Your task to perform on an android device: Play the last video I watched on Youtube Image 0: 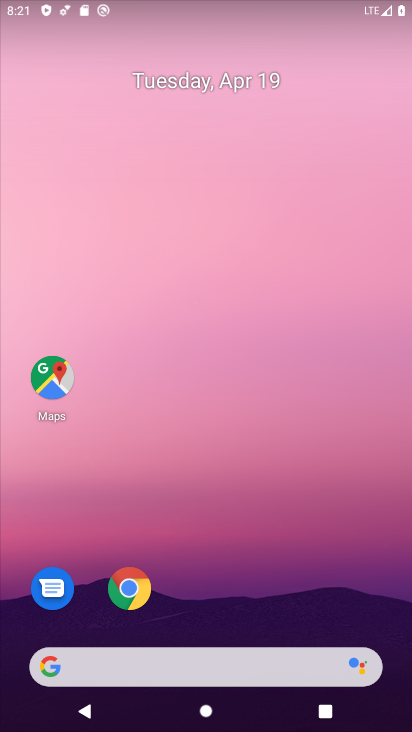
Step 0: press home button
Your task to perform on an android device: Play the last video I watched on Youtube Image 1: 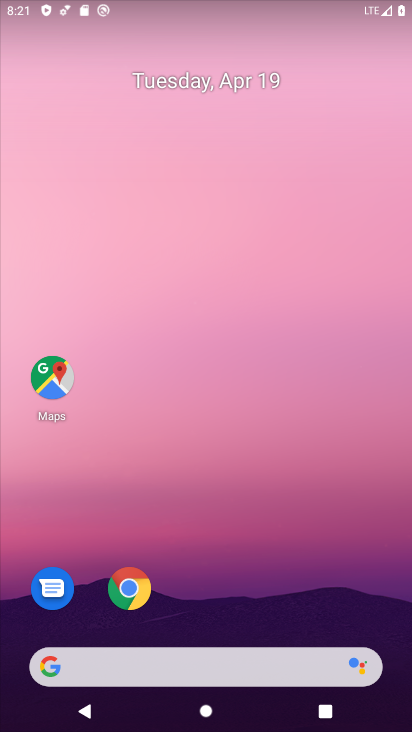
Step 1: drag from (223, 154) to (214, 28)
Your task to perform on an android device: Play the last video I watched on Youtube Image 2: 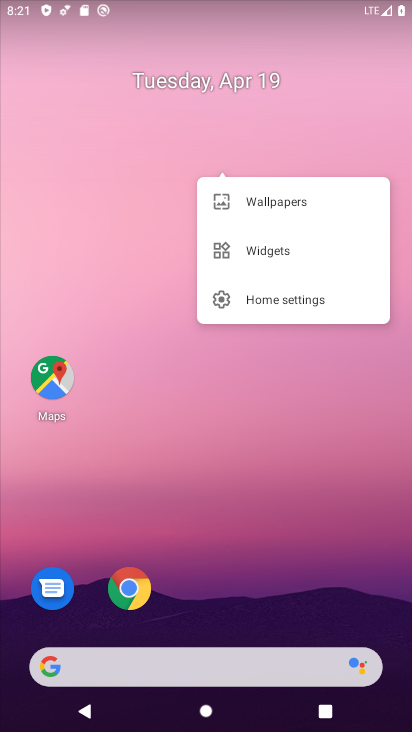
Step 2: click (199, 543)
Your task to perform on an android device: Play the last video I watched on Youtube Image 3: 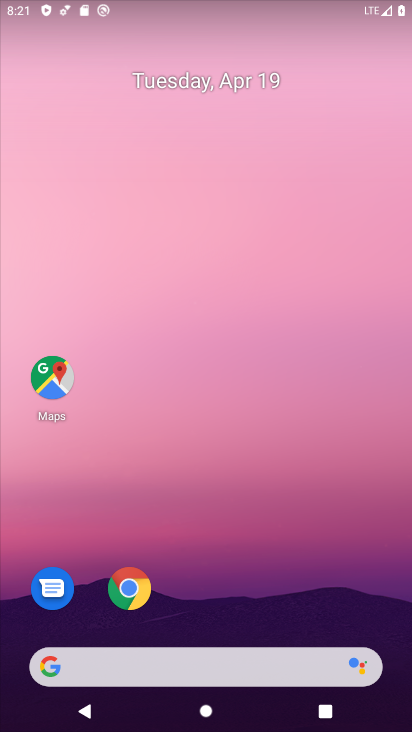
Step 3: drag from (205, 609) to (234, 31)
Your task to perform on an android device: Play the last video I watched on Youtube Image 4: 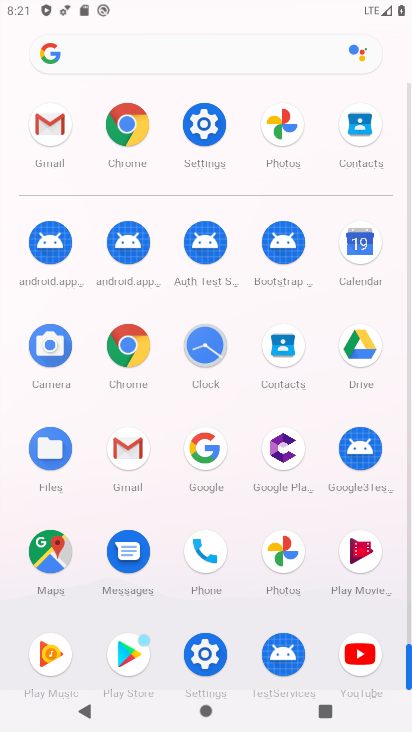
Step 4: click (360, 643)
Your task to perform on an android device: Play the last video I watched on Youtube Image 5: 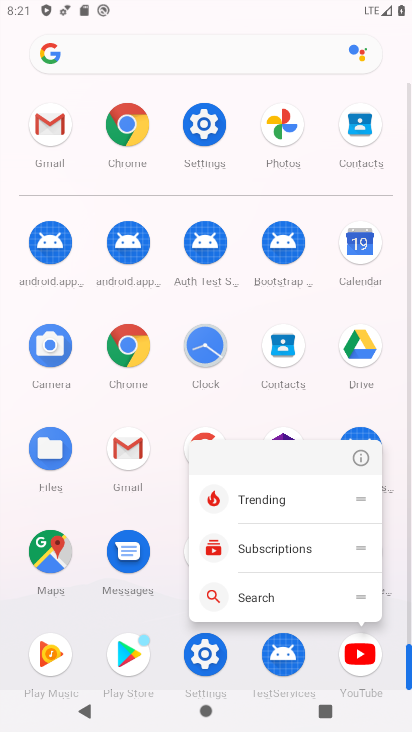
Step 5: click (358, 661)
Your task to perform on an android device: Play the last video I watched on Youtube Image 6: 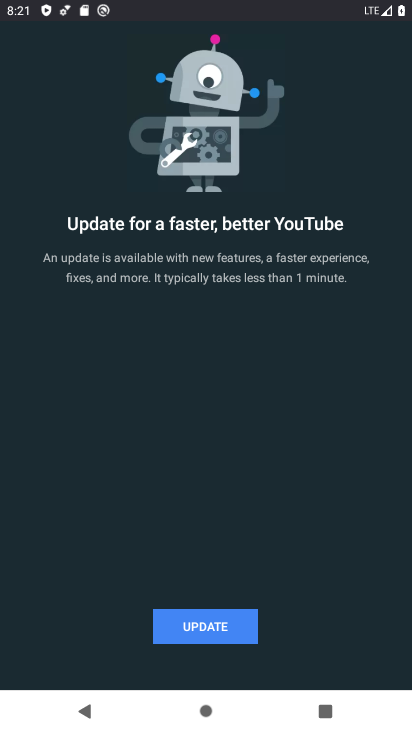
Step 6: click (185, 616)
Your task to perform on an android device: Play the last video I watched on Youtube Image 7: 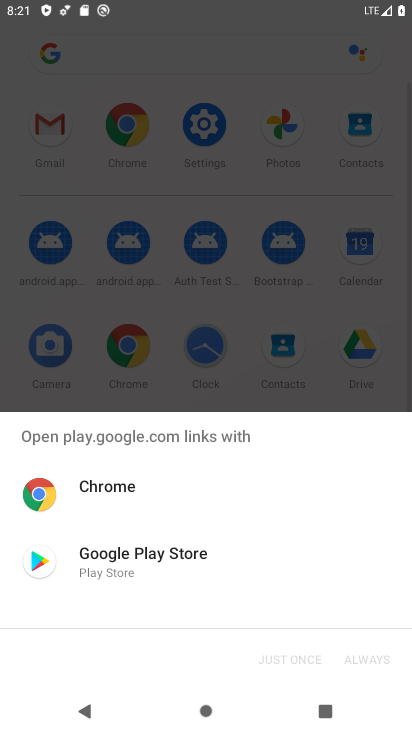
Step 7: click (172, 575)
Your task to perform on an android device: Play the last video I watched on Youtube Image 8: 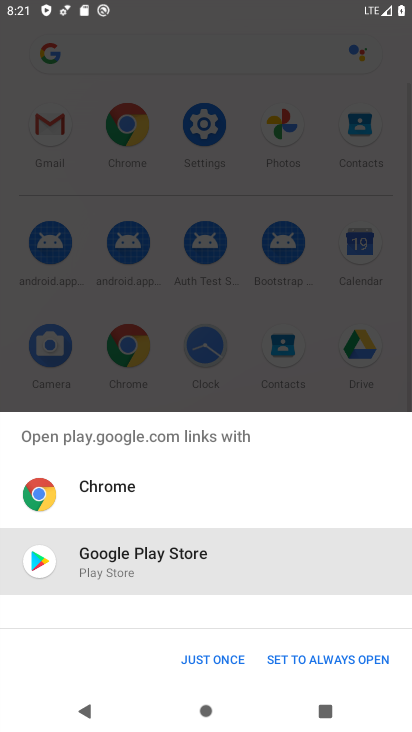
Step 8: click (200, 659)
Your task to perform on an android device: Play the last video I watched on Youtube Image 9: 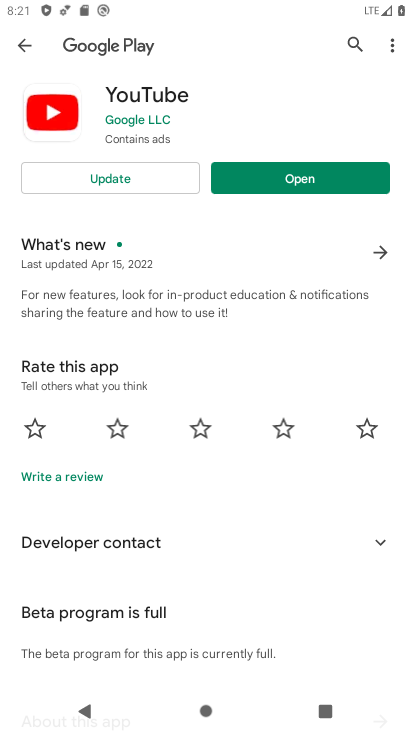
Step 9: click (102, 174)
Your task to perform on an android device: Play the last video I watched on Youtube Image 10: 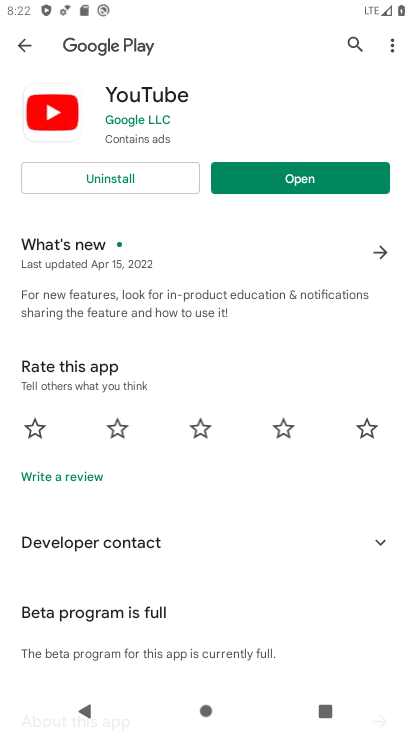
Step 10: click (293, 178)
Your task to perform on an android device: Play the last video I watched on Youtube Image 11: 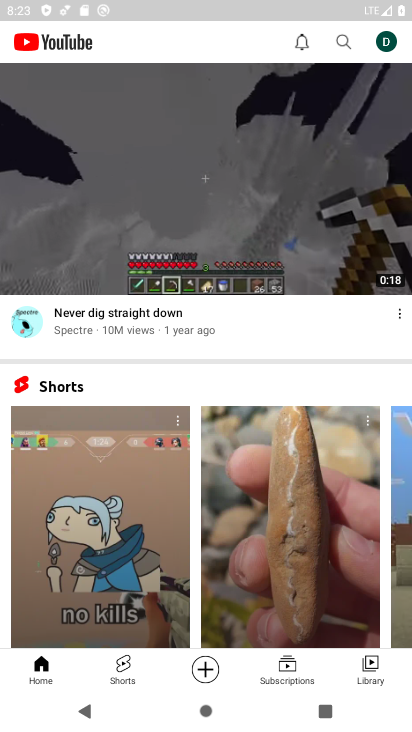
Step 11: click (370, 655)
Your task to perform on an android device: Play the last video I watched on Youtube Image 12: 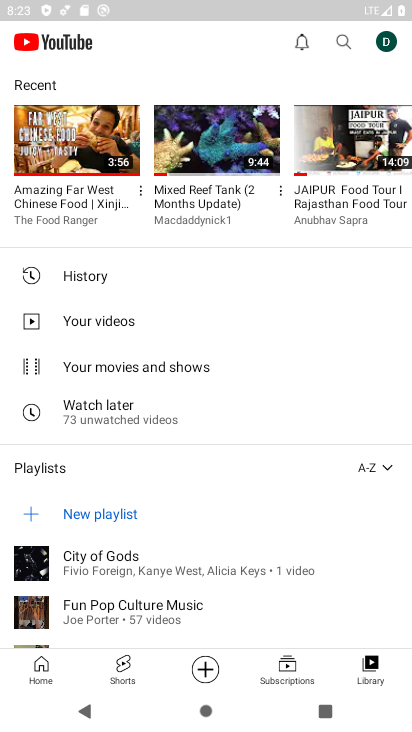
Step 12: click (72, 152)
Your task to perform on an android device: Play the last video I watched on Youtube Image 13: 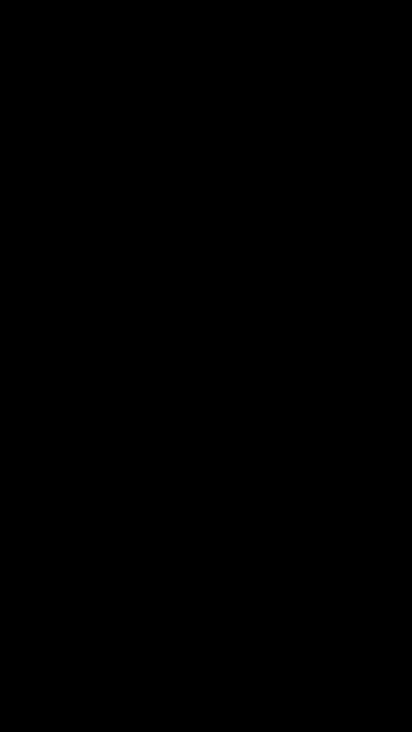
Step 13: task complete